Your task to perform on an android device: change the upload size in google photos Image 0: 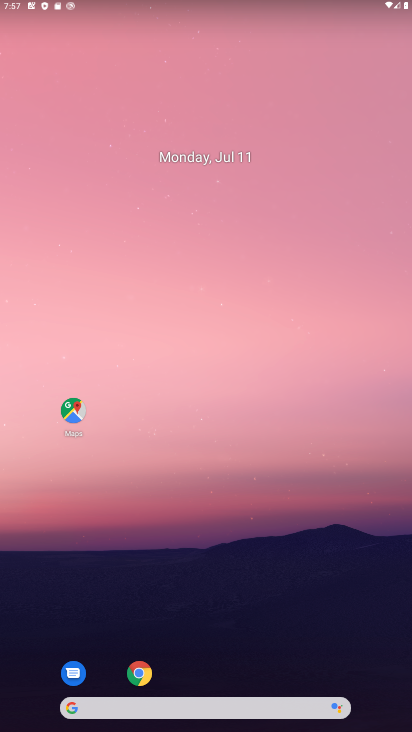
Step 0: press home button
Your task to perform on an android device: change the upload size in google photos Image 1: 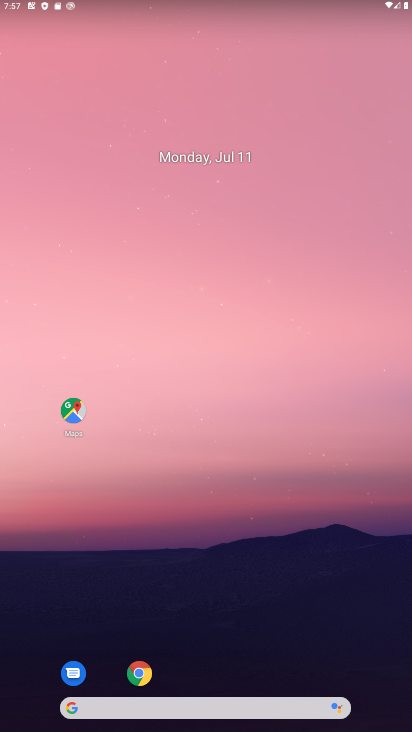
Step 1: drag from (210, 674) to (235, 94)
Your task to perform on an android device: change the upload size in google photos Image 2: 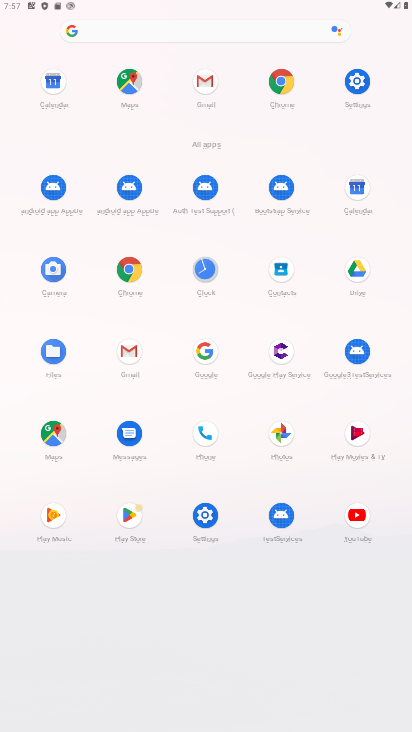
Step 2: click (280, 431)
Your task to perform on an android device: change the upload size in google photos Image 3: 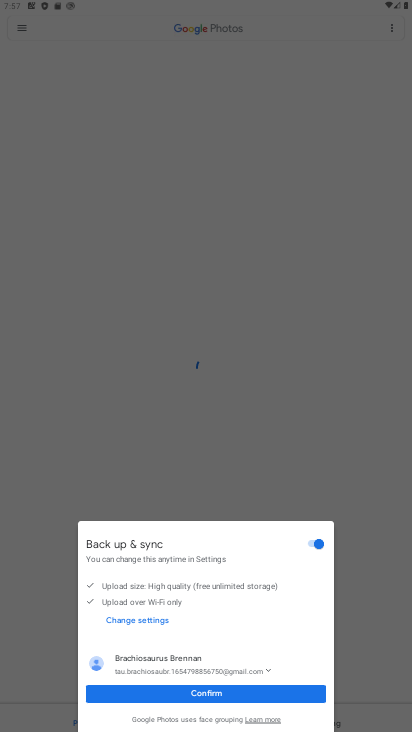
Step 3: click (213, 697)
Your task to perform on an android device: change the upload size in google photos Image 4: 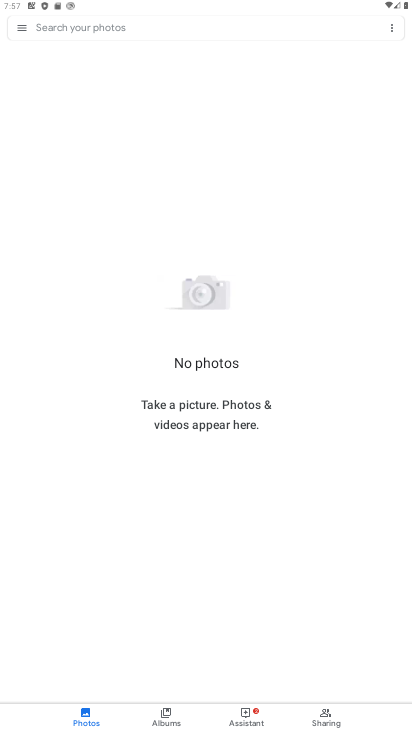
Step 4: click (18, 25)
Your task to perform on an android device: change the upload size in google photos Image 5: 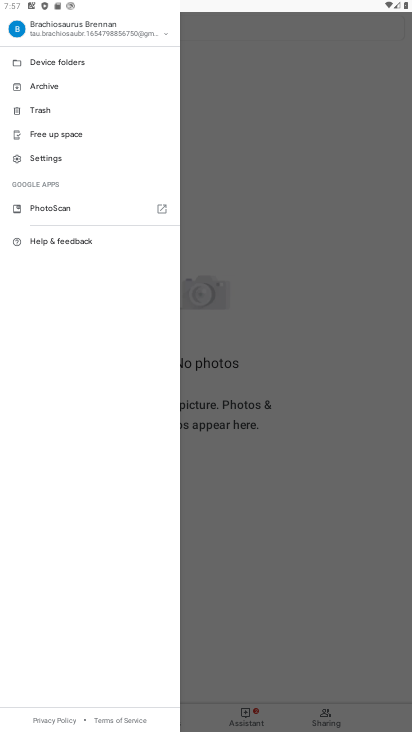
Step 5: click (57, 160)
Your task to perform on an android device: change the upload size in google photos Image 6: 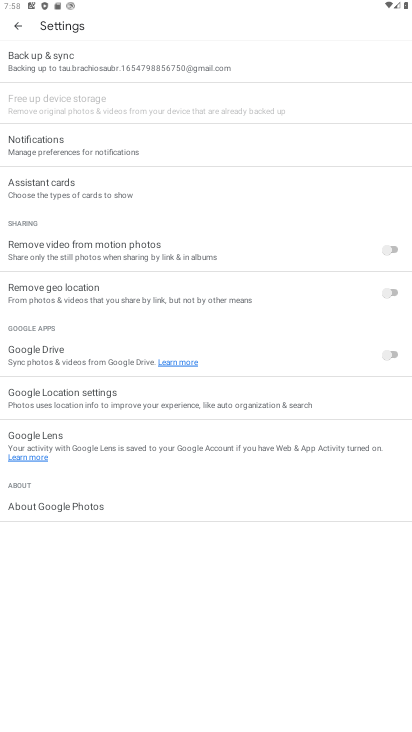
Step 6: click (92, 63)
Your task to perform on an android device: change the upload size in google photos Image 7: 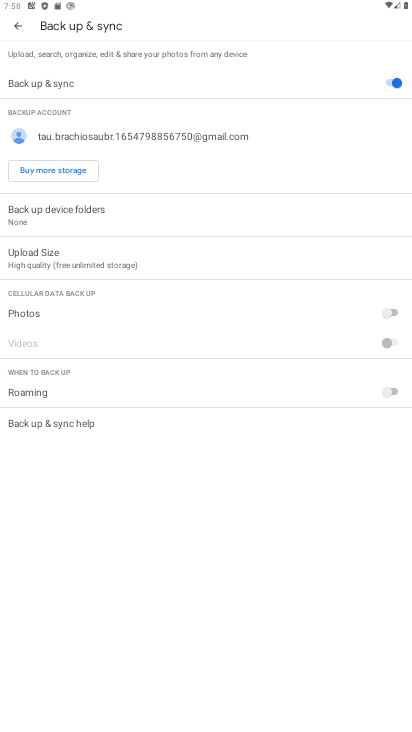
Step 7: click (90, 256)
Your task to perform on an android device: change the upload size in google photos Image 8: 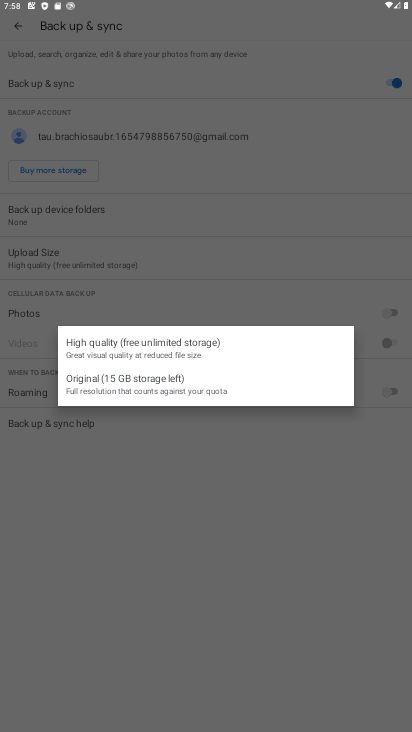
Step 8: click (160, 345)
Your task to perform on an android device: change the upload size in google photos Image 9: 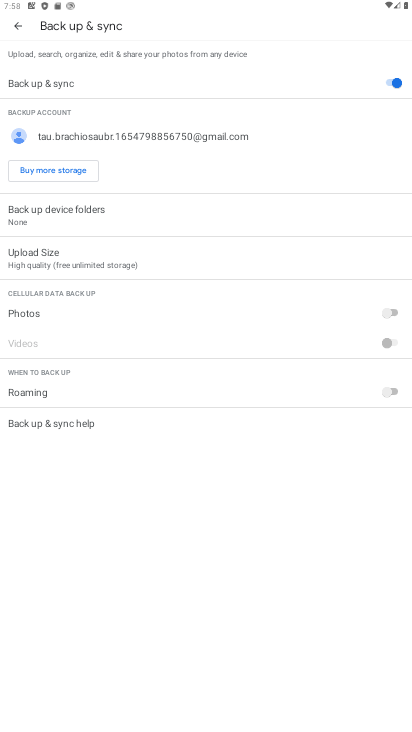
Step 9: task complete